Your task to perform on an android device: change notification settings in the gmail app Image 0: 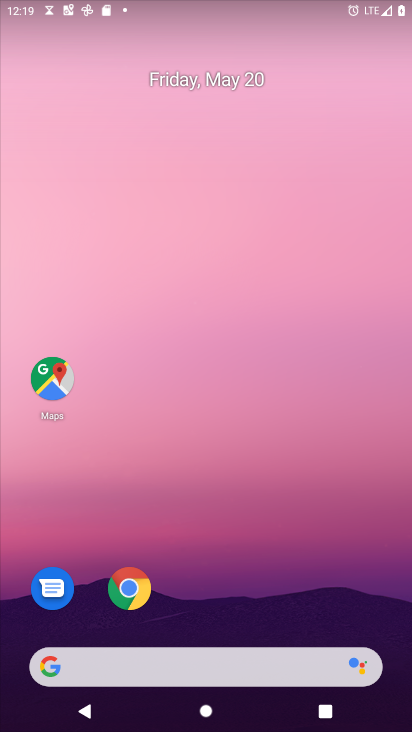
Step 0: drag from (278, 527) to (96, 13)
Your task to perform on an android device: change notification settings in the gmail app Image 1: 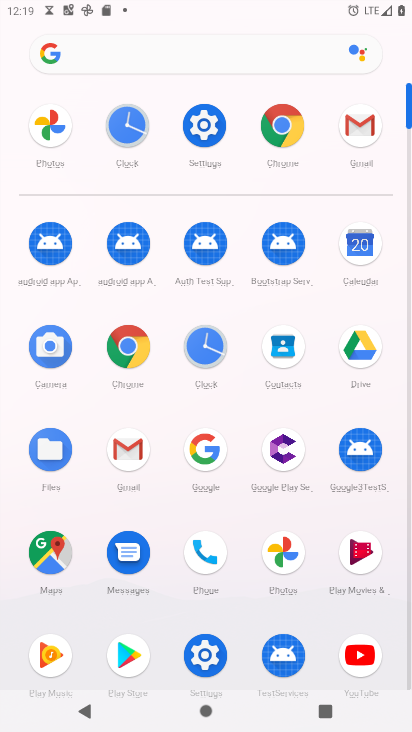
Step 1: click (369, 128)
Your task to perform on an android device: change notification settings in the gmail app Image 2: 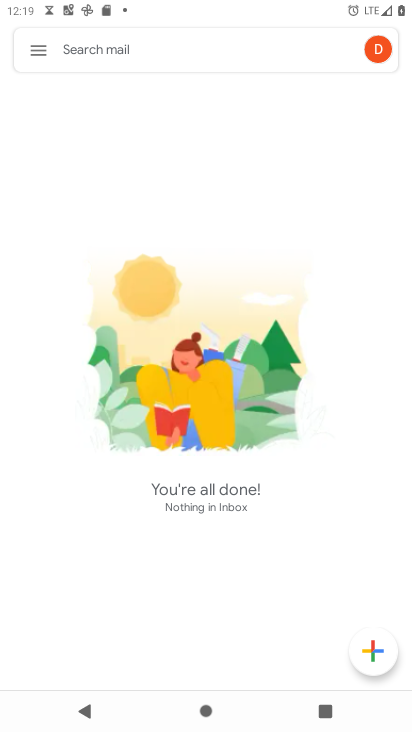
Step 2: drag from (249, 533) to (140, 96)
Your task to perform on an android device: change notification settings in the gmail app Image 3: 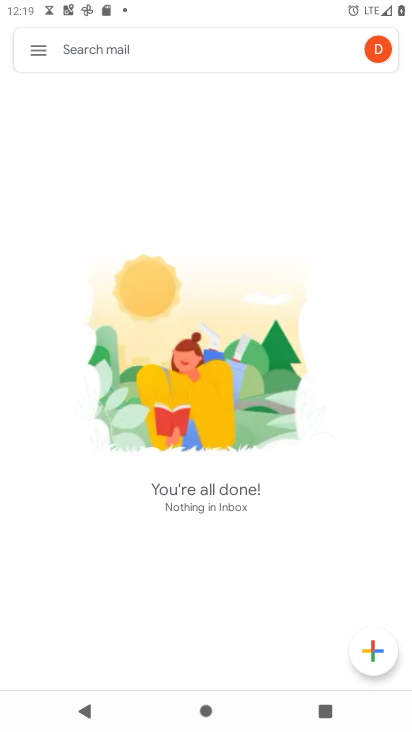
Step 3: click (35, 49)
Your task to perform on an android device: change notification settings in the gmail app Image 4: 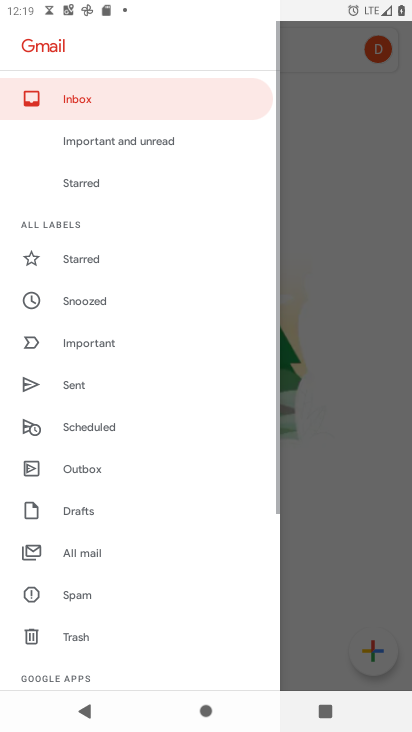
Step 4: drag from (168, 545) to (134, 42)
Your task to perform on an android device: change notification settings in the gmail app Image 5: 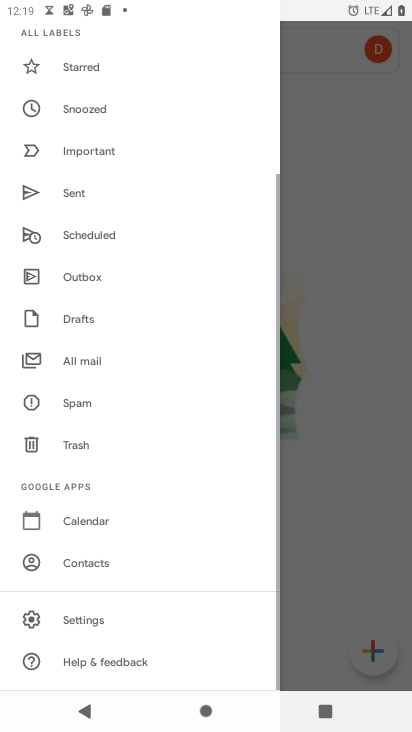
Step 5: click (116, 621)
Your task to perform on an android device: change notification settings in the gmail app Image 6: 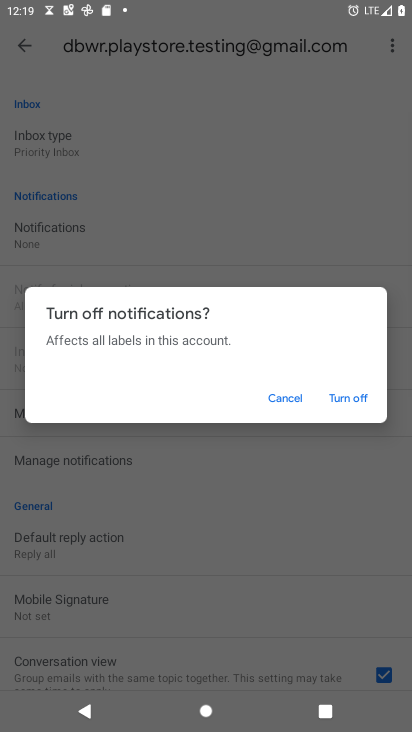
Step 6: click (297, 402)
Your task to perform on an android device: change notification settings in the gmail app Image 7: 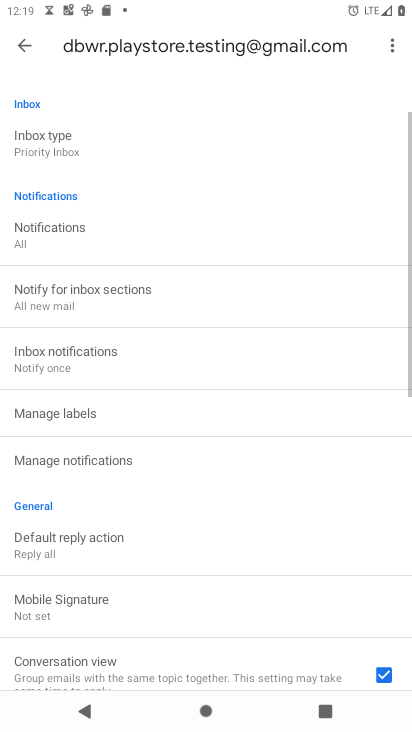
Step 7: click (128, 239)
Your task to perform on an android device: change notification settings in the gmail app Image 8: 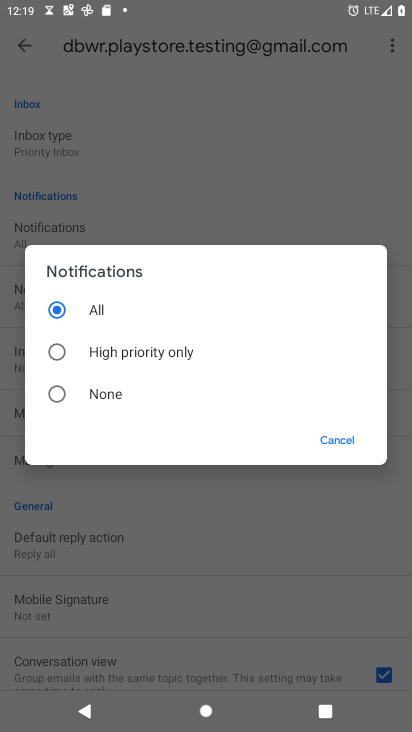
Step 8: click (329, 436)
Your task to perform on an android device: change notification settings in the gmail app Image 9: 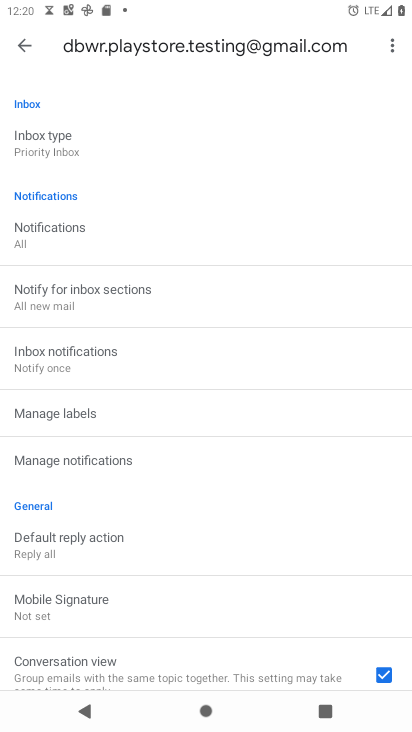
Step 9: task complete